Your task to perform on an android device: Clear the cart on costco. Search for bose soundsport free on costco, select the first entry, and add it to the cart. Image 0: 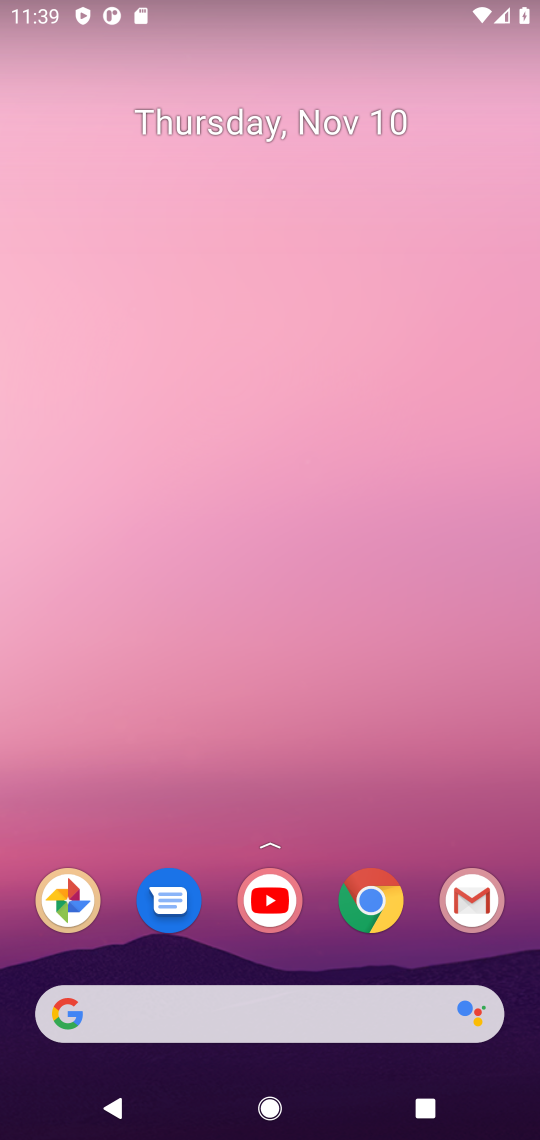
Step 0: click (374, 900)
Your task to perform on an android device: Clear the cart on costco. Search for bose soundsport free on costco, select the first entry, and add it to the cart. Image 1: 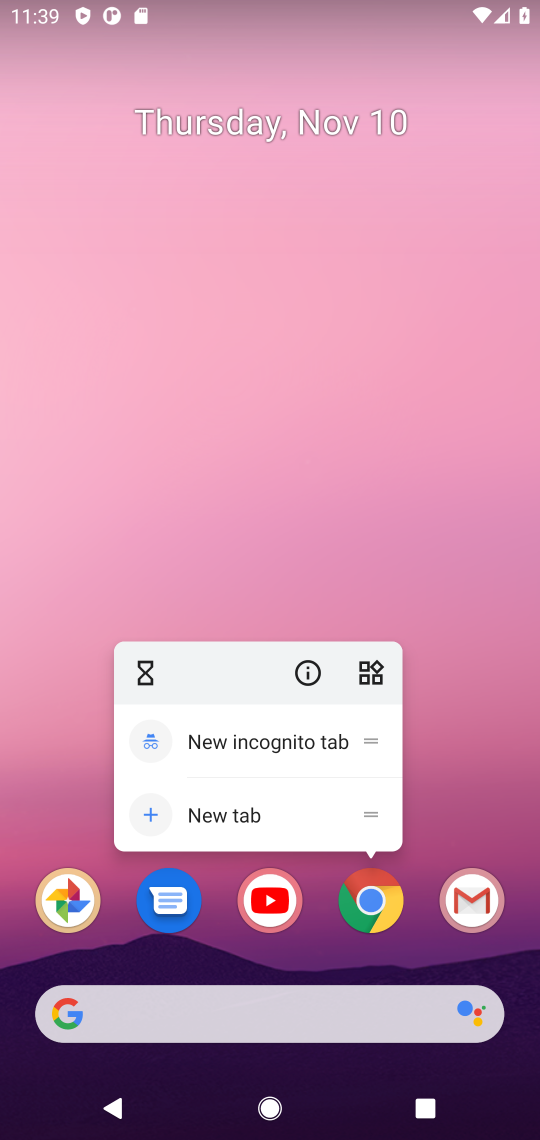
Step 1: click (374, 902)
Your task to perform on an android device: Clear the cart on costco. Search for bose soundsport free on costco, select the first entry, and add it to the cart. Image 2: 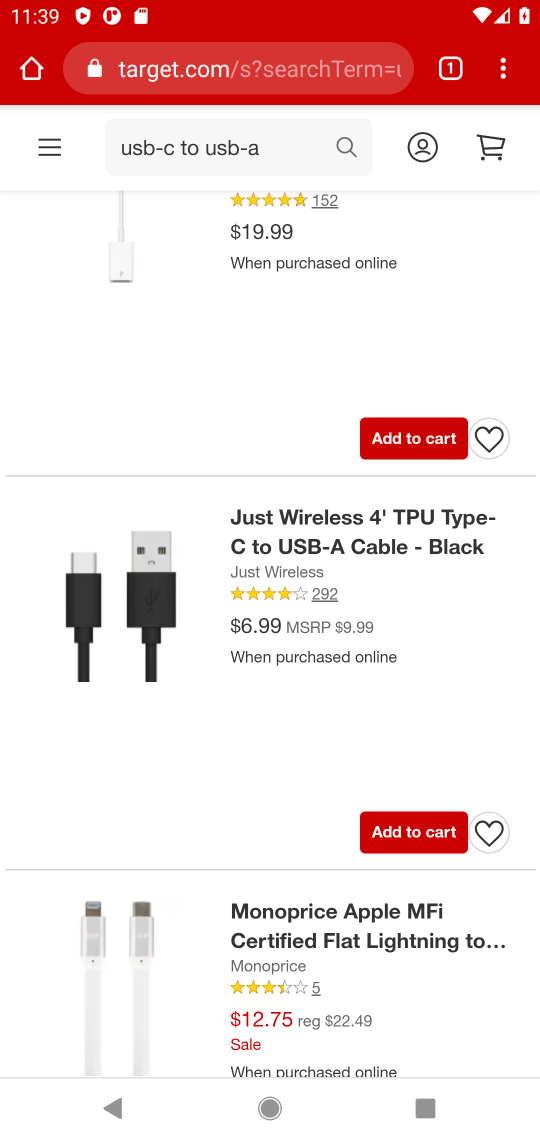
Step 2: click (225, 74)
Your task to perform on an android device: Clear the cart on costco. Search for bose soundsport free on costco, select the first entry, and add it to the cart. Image 3: 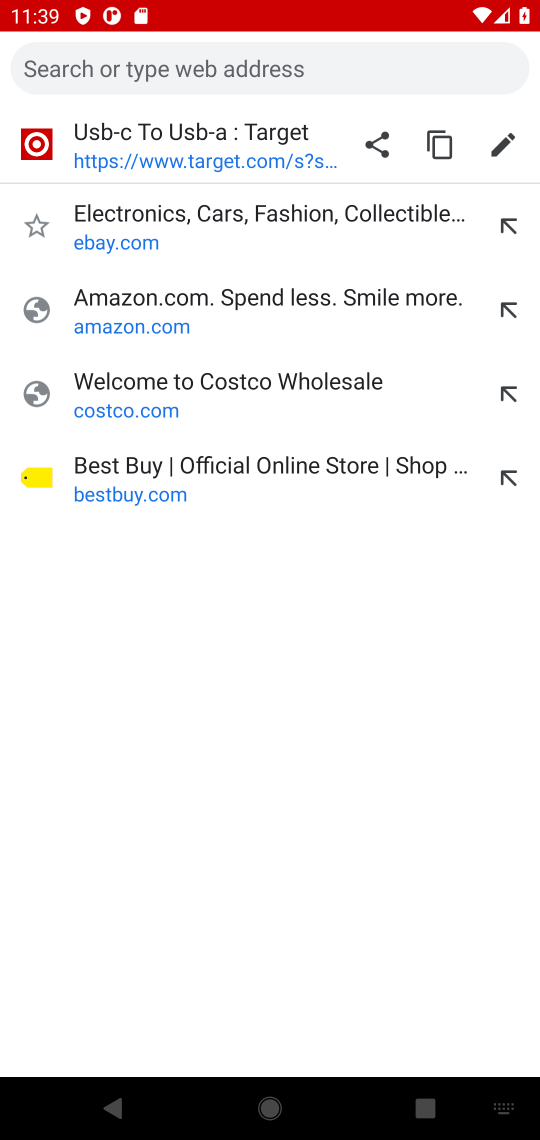
Step 3: click (131, 402)
Your task to perform on an android device: Clear the cart on costco. Search for bose soundsport free on costco, select the first entry, and add it to the cart. Image 4: 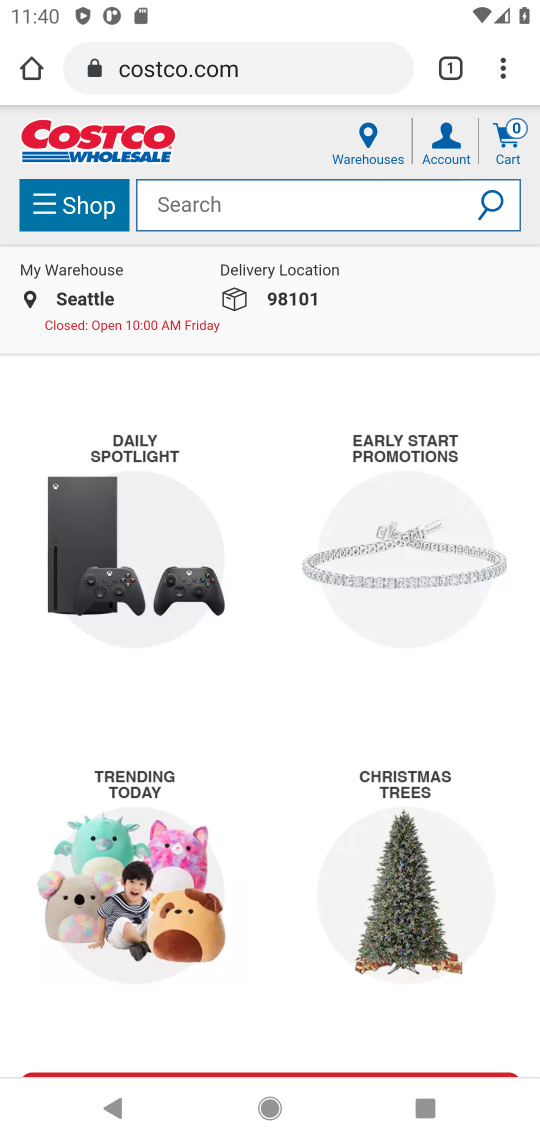
Step 4: click (279, 199)
Your task to perform on an android device: Clear the cart on costco. Search for bose soundsport free on costco, select the first entry, and add it to the cart. Image 5: 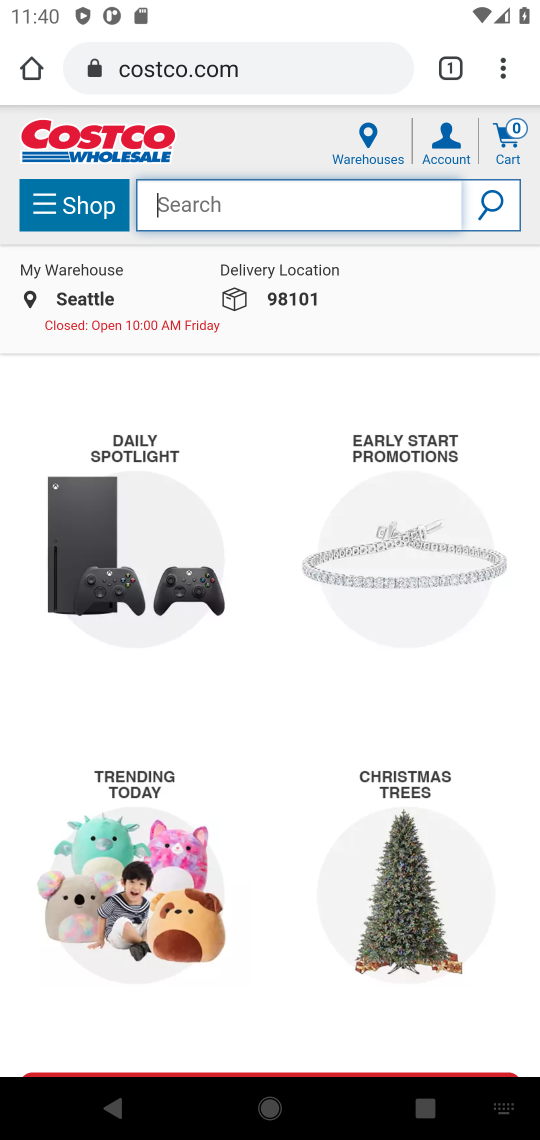
Step 5: type "bose soundsport free"
Your task to perform on an android device: Clear the cart on costco. Search for bose soundsport free on costco, select the first entry, and add it to the cart. Image 6: 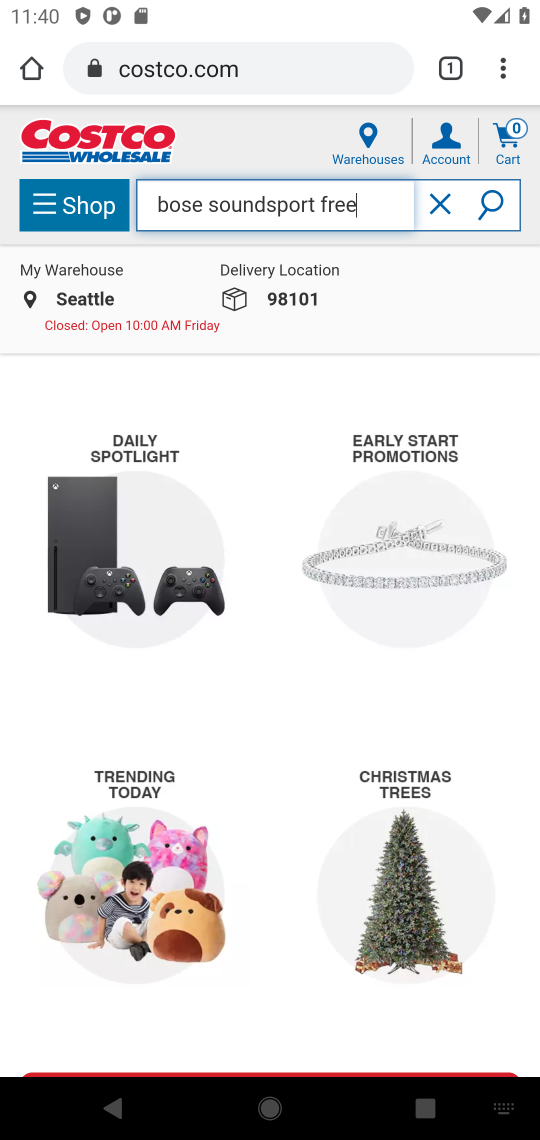
Step 6: press enter
Your task to perform on an android device: Clear the cart on costco. Search for bose soundsport free on costco, select the first entry, and add it to the cart. Image 7: 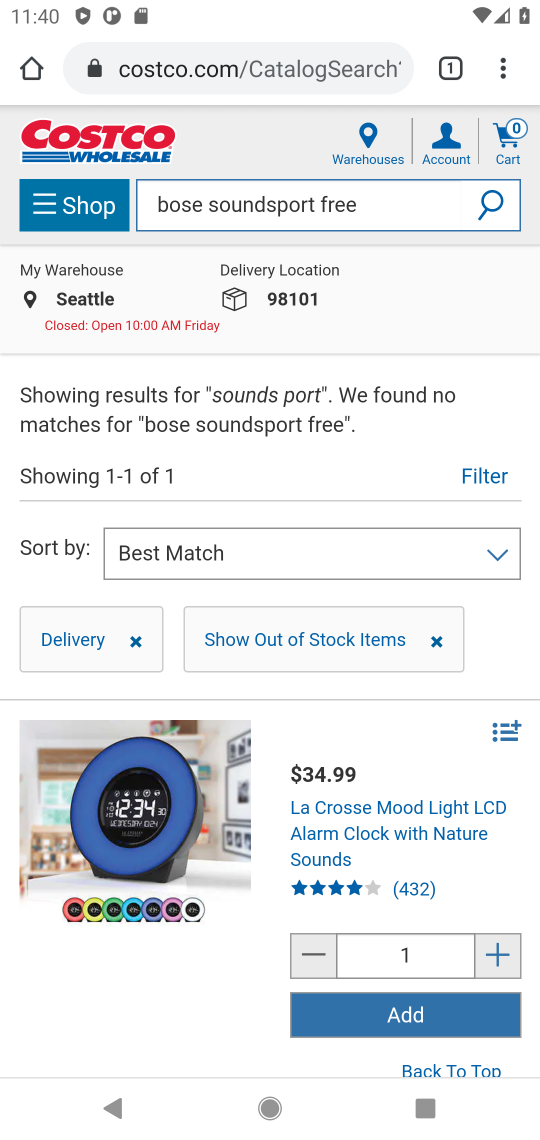
Step 7: task complete